Your task to perform on an android device: Add jbl charge 4 to the cart on newegg, then select checkout. Image 0: 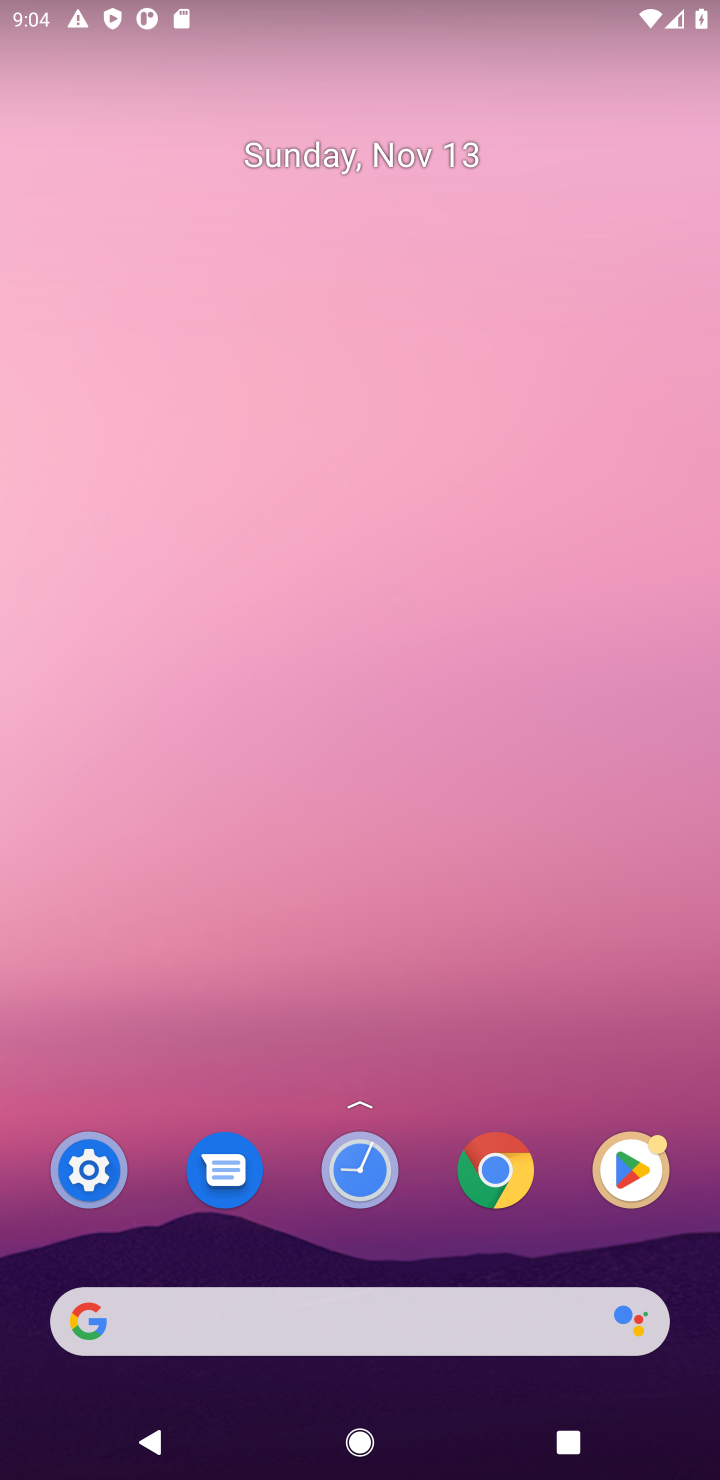
Step 0: click (352, 1350)
Your task to perform on an android device: Add jbl charge 4 to the cart on newegg, then select checkout. Image 1: 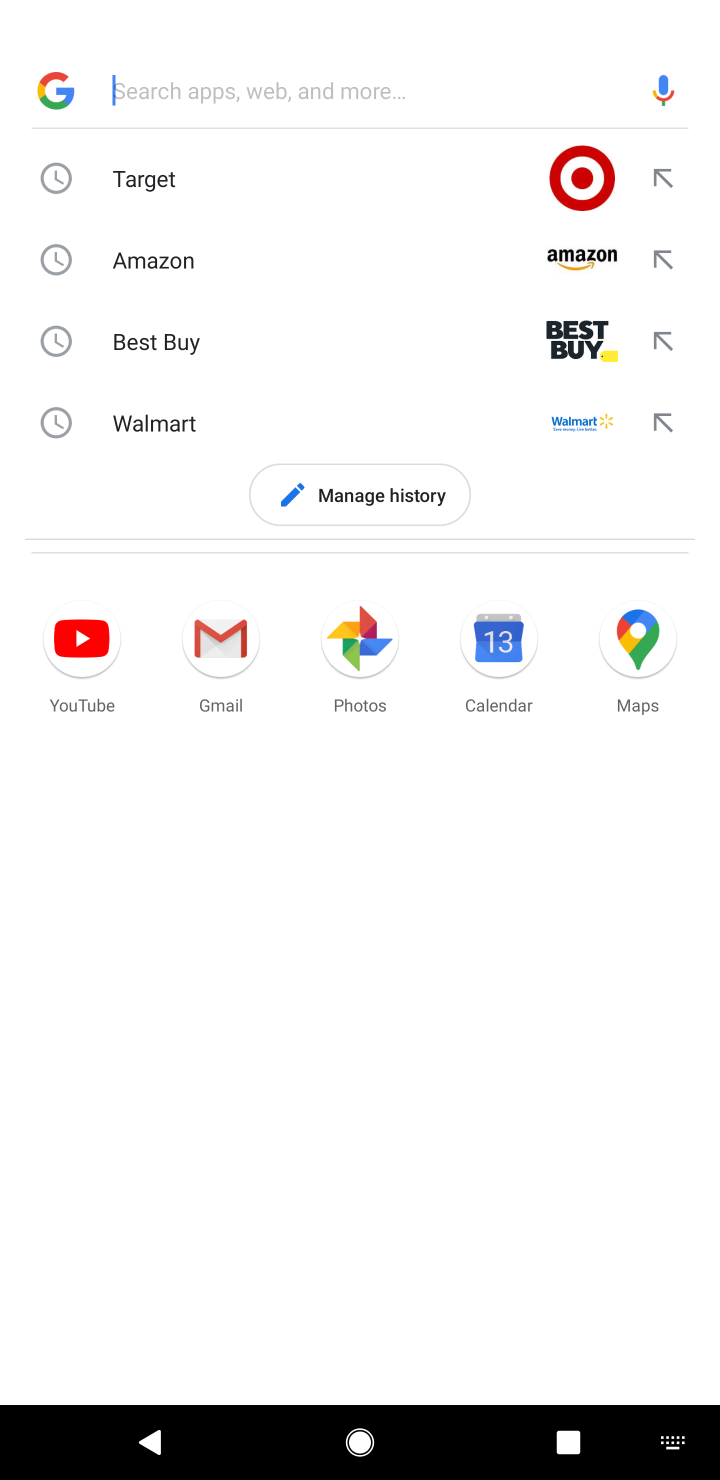
Step 1: type "newegg"
Your task to perform on an android device: Add jbl charge 4 to the cart on newegg, then select checkout. Image 2: 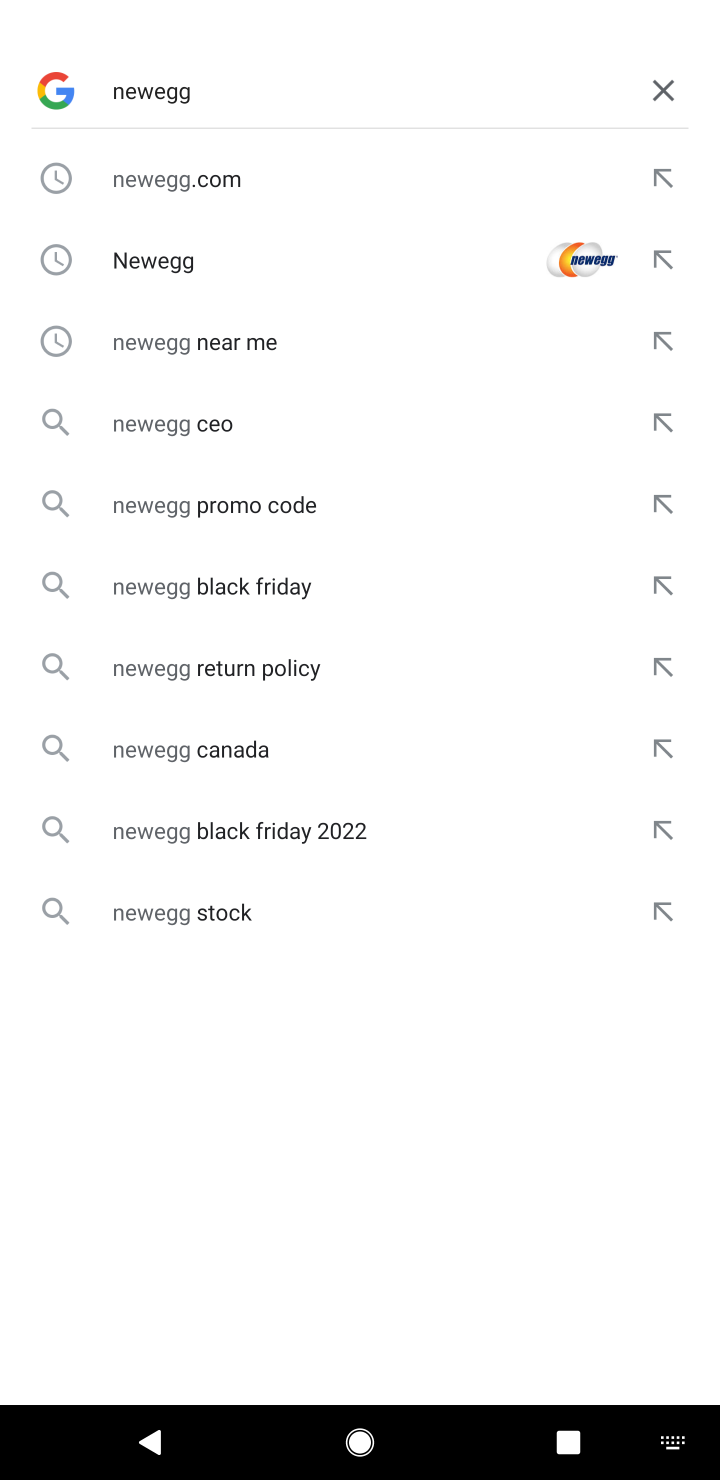
Step 2: click (204, 164)
Your task to perform on an android device: Add jbl charge 4 to the cart on newegg, then select checkout. Image 3: 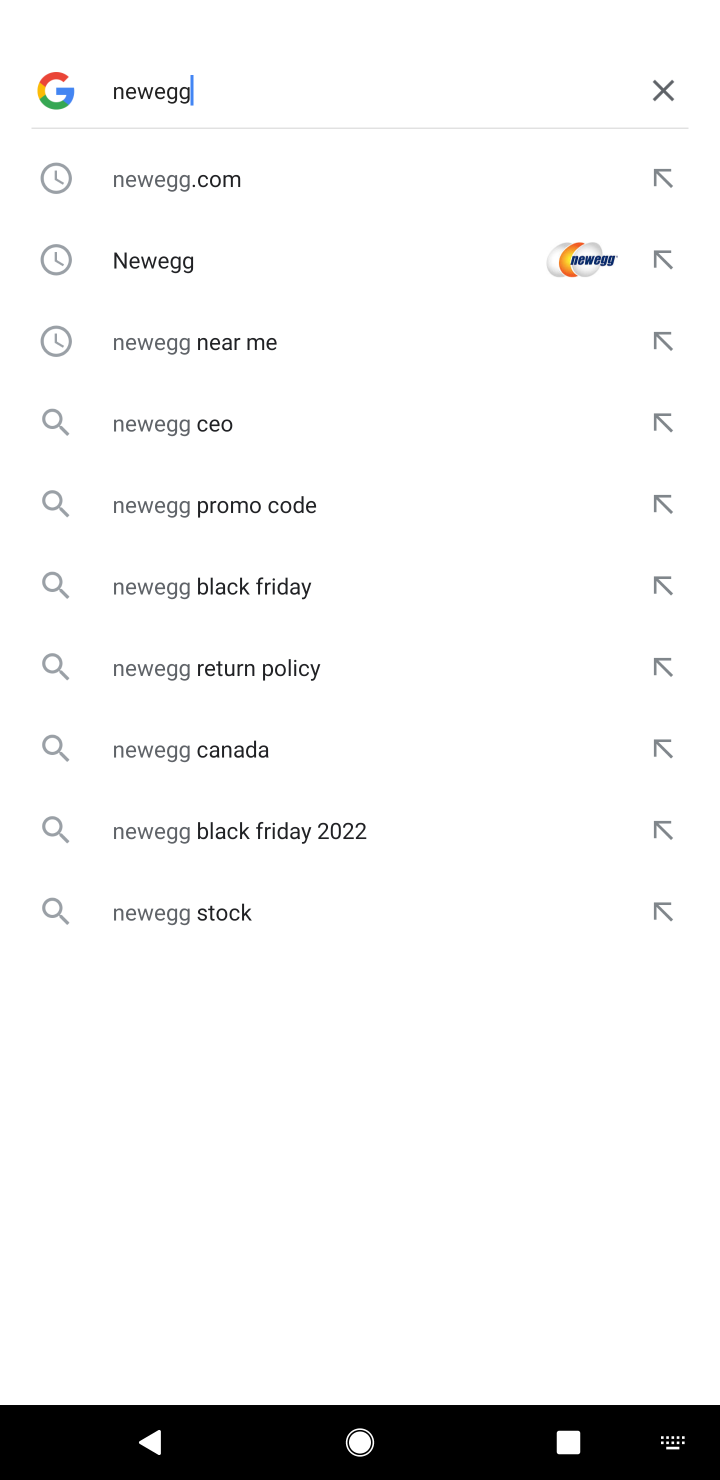
Step 3: click (204, 164)
Your task to perform on an android device: Add jbl charge 4 to the cart on newegg, then select checkout. Image 4: 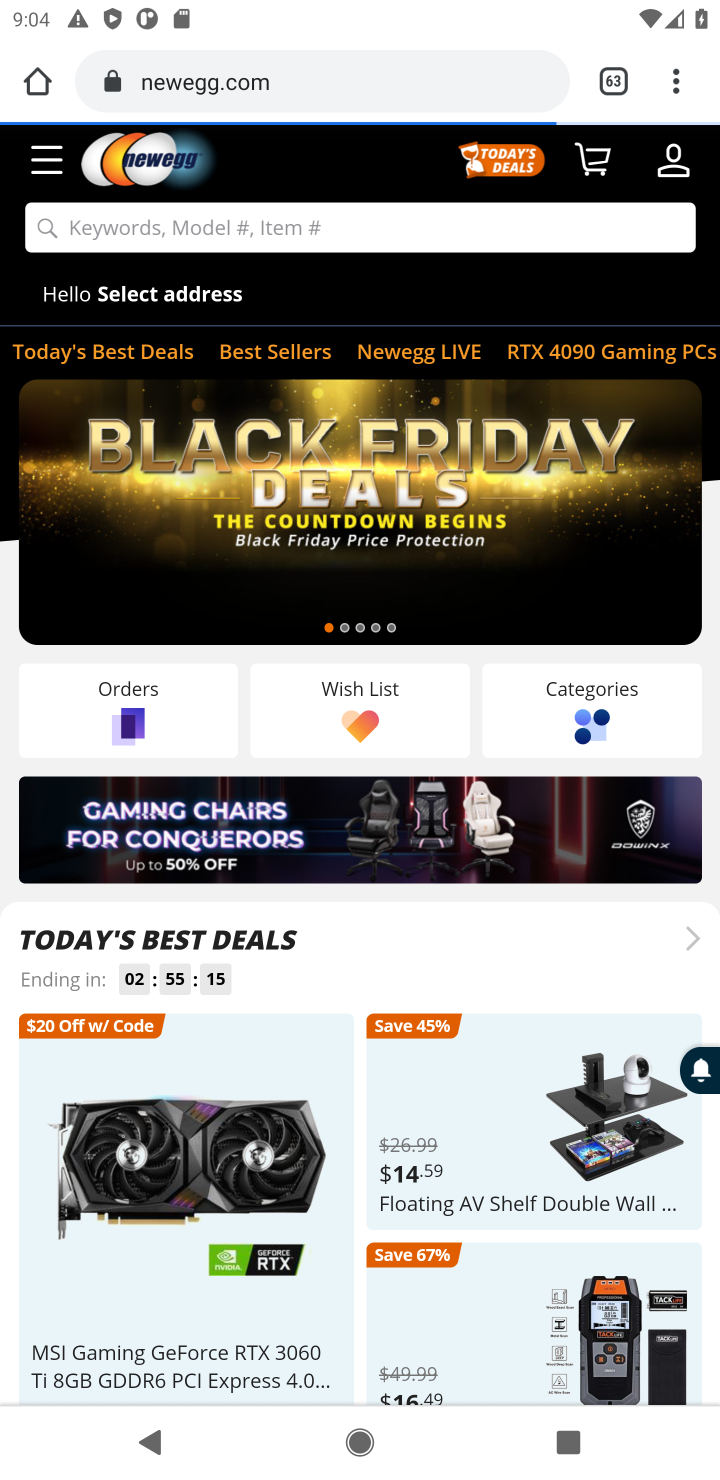
Step 4: task complete